Your task to perform on an android device: open app "Walmart Shopping & Grocery" Image 0: 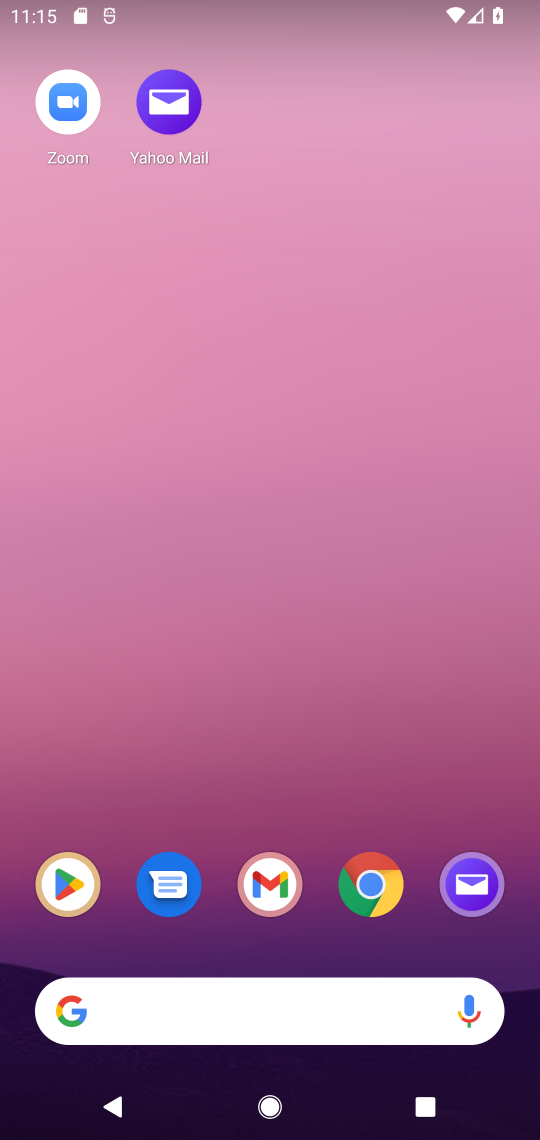
Step 0: click (52, 877)
Your task to perform on an android device: open app "Walmart Shopping & Grocery" Image 1: 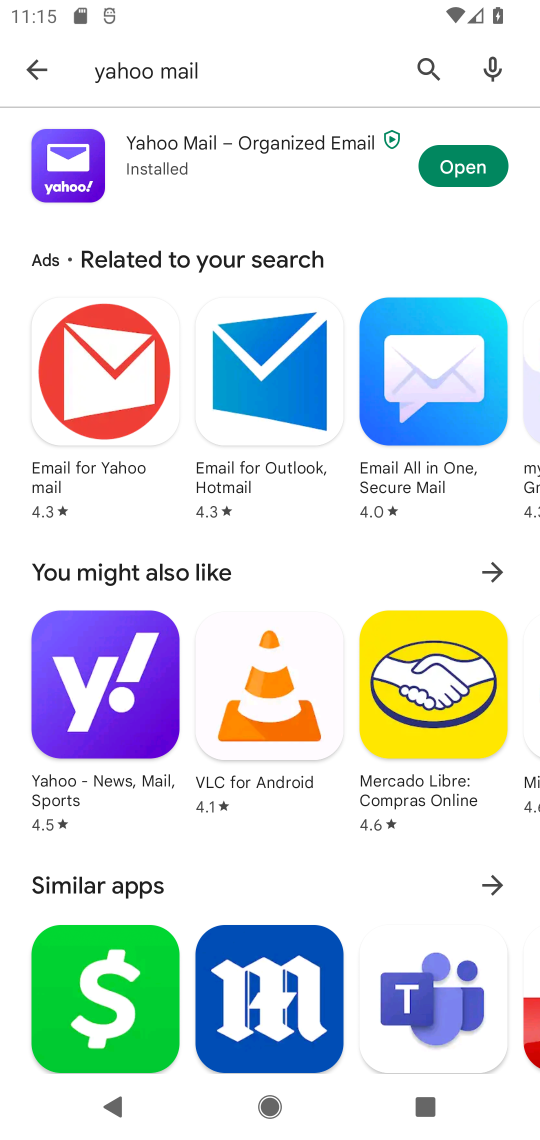
Step 1: click (262, 80)
Your task to perform on an android device: open app "Walmart Shopping & Grocery" Image 2: 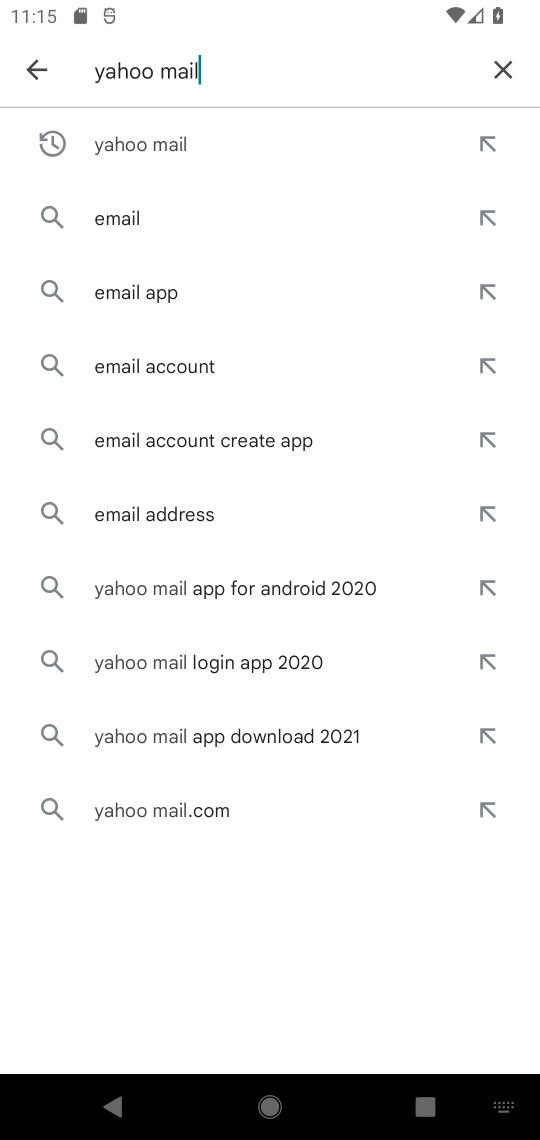
Step 2: click (507, 56)
Your task to perform on an android device: open app "Walmart Shopping & Grocery" Image 3: 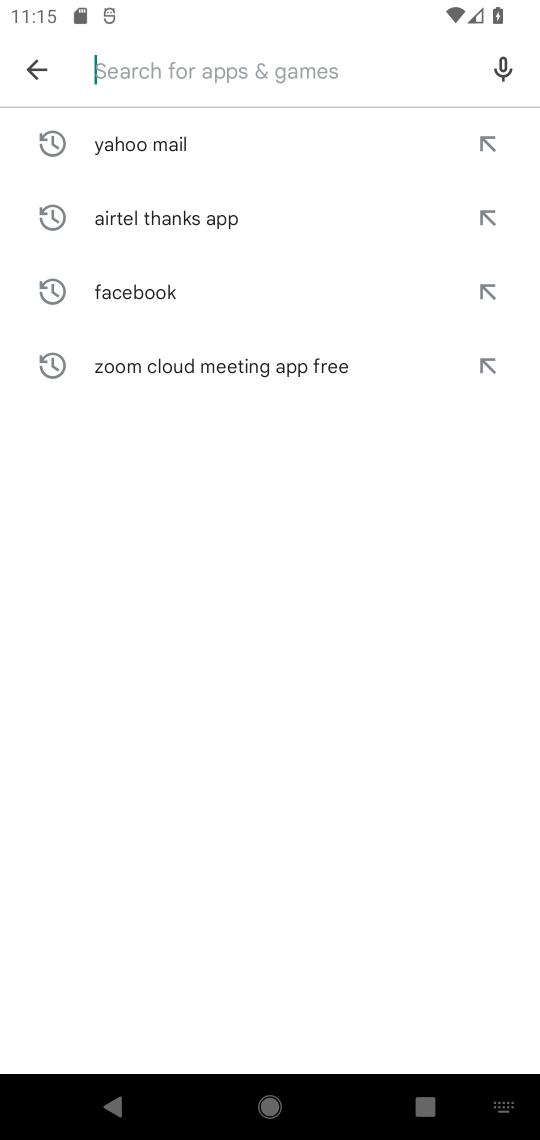
Step 3: type "walmart"
Your task to perform on an android device: open app "Walmart Shopping & Grocery" Image 4: 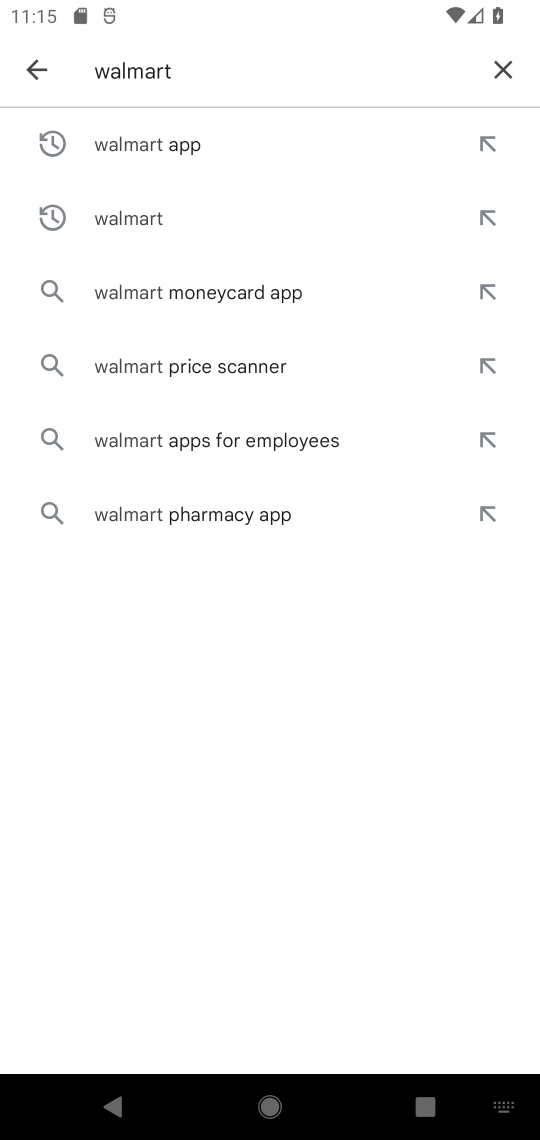
Step 4: click (174, 158)
Your task to perform on an android device: open app "Walmart Shopping & Grocery" Image 5: 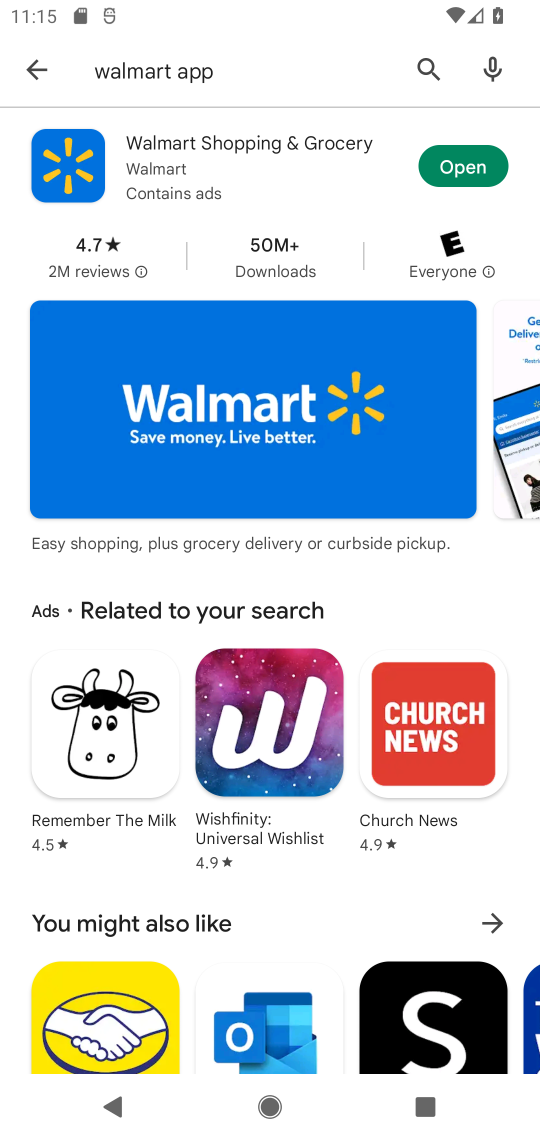
Step 5: click (482, 164)
Your task to perform on an android device: open app "Walmart Shopping & Grocery" Image 6: 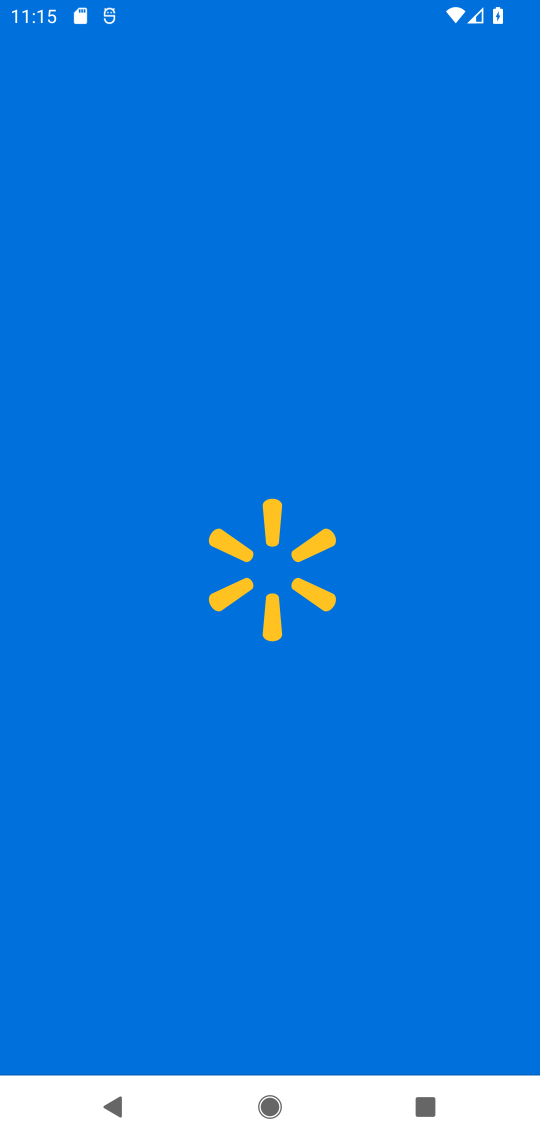
Step 6: click (203, 779)
Your task to perform on an android device: open app "Walmart Shopping & Grocery" Image 7: 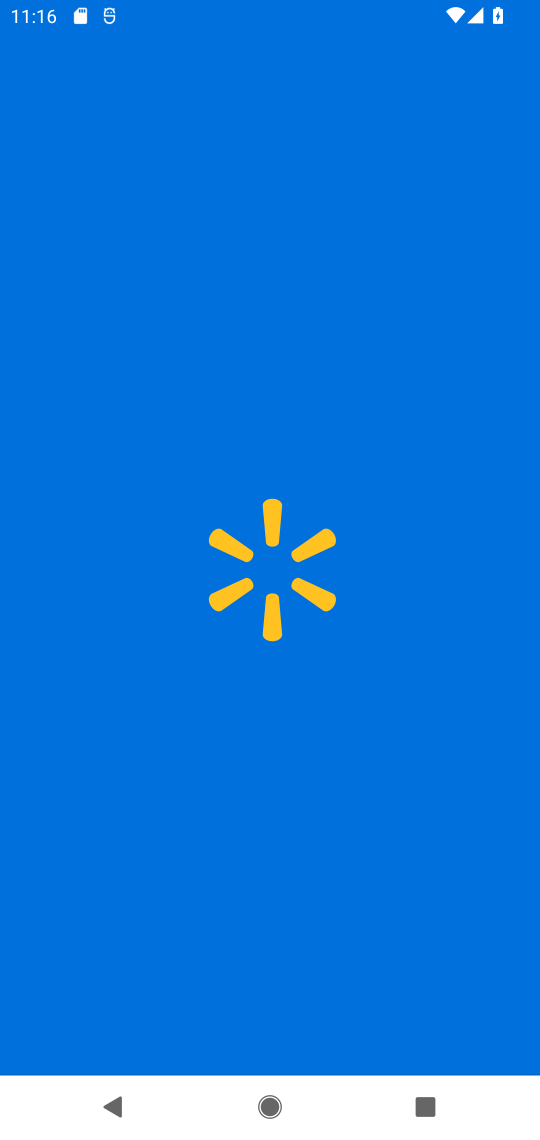
Step 7: click (277, 607)
Your task to perform on an android device: open app "Walmart Shopping & Grocery" Image 8: 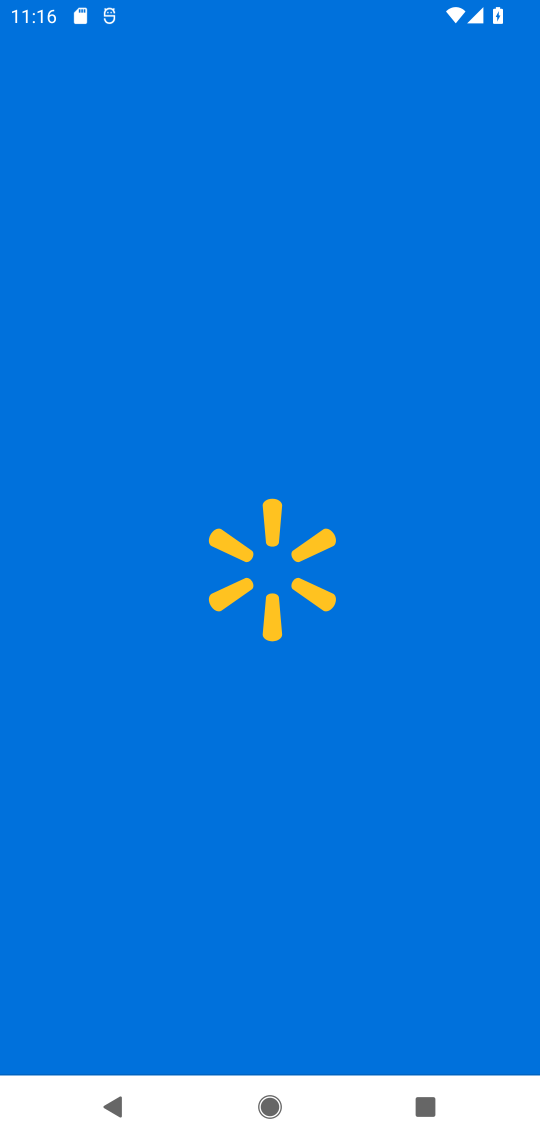
Step 8: task complete